Your task to perform on an android device: change keyboard looks Image 0: 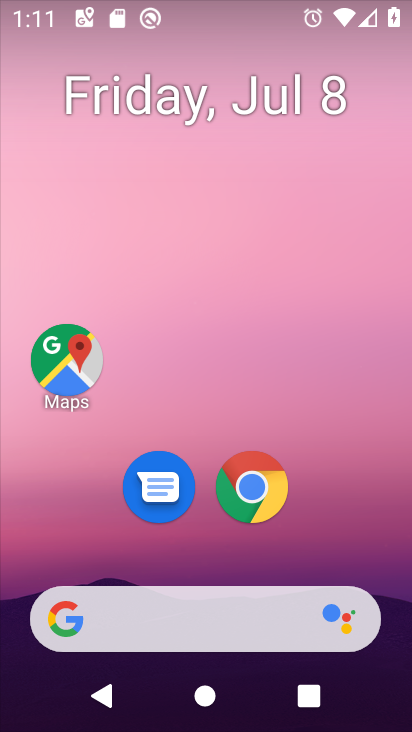
Step 0: drag from (348, 511) to (346, 126)
Your task to perform on an android device: change keyboard looks Image 1: 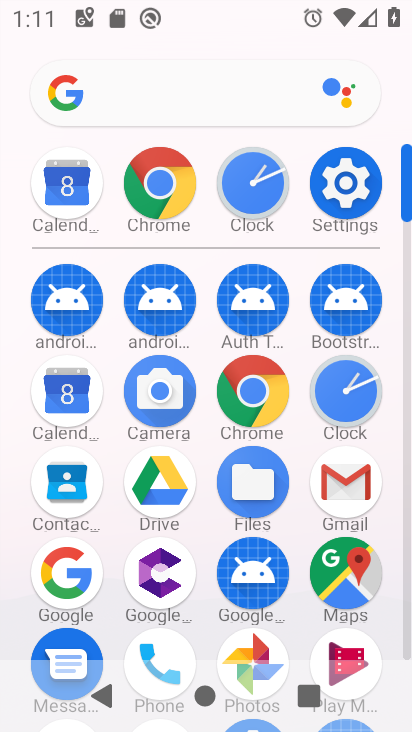
Step 1: click (351, 198)
Your task to perform on an android device: change keyboard looks Image 2: 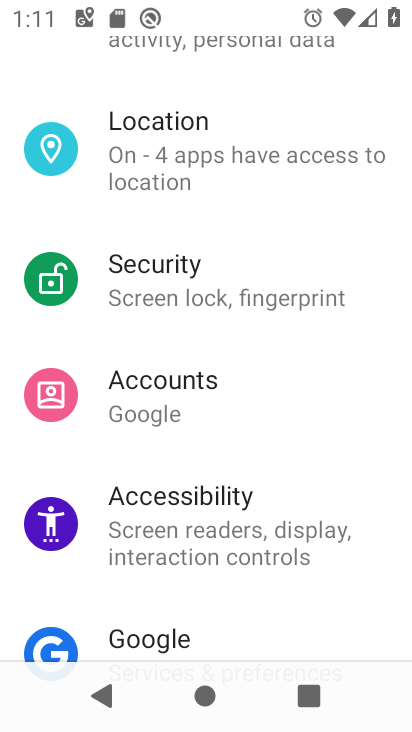
Step 2: drag from (370, 376) to (384, 270)
Your task to perform on an android device: change keyboard looks Image 3: 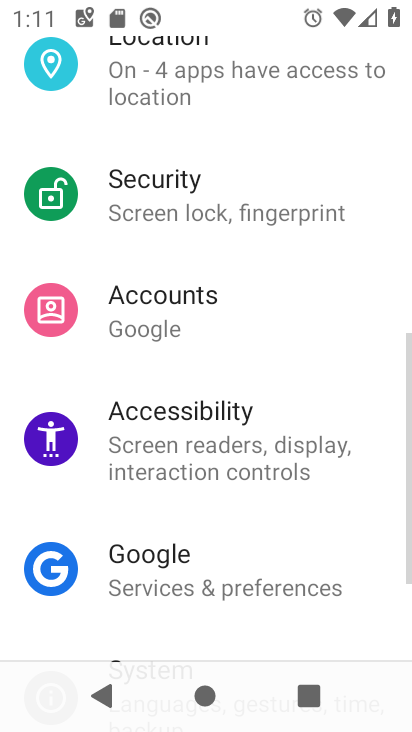
Step 3: drag from (354, 418) to (354, 316)
Your task to perform on an android device: change keyboard looks Image 4: 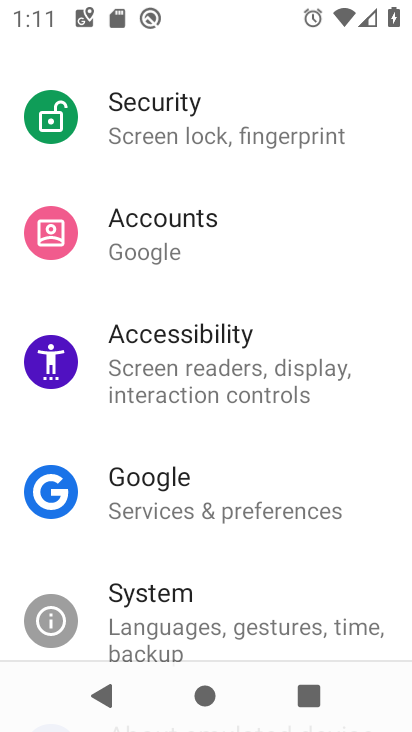
Step 4: drag from (314, 552) to (322, 433)
Your task to perform on an android device: change keyboard looks Image 5: 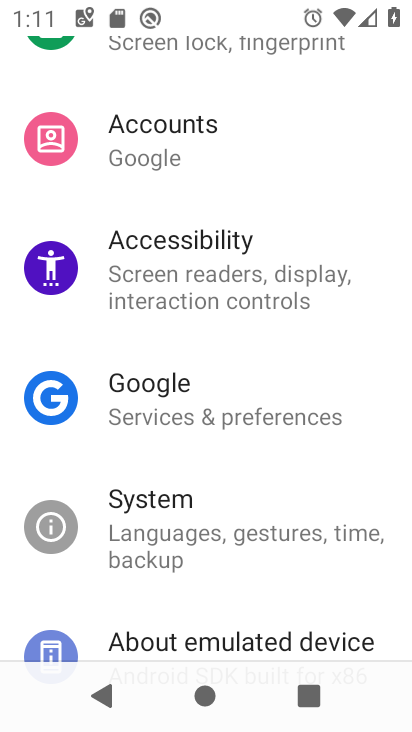
Step 5: drag from (353, 578) to (353, 399)
Your task to perform on an android device: change keyboard looks Image 6: 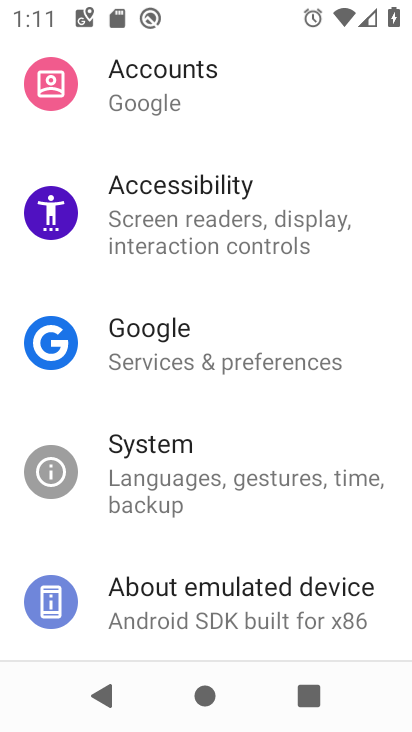
Step 6: click (331, 478)
Your task to perform on an android device: change keyboard looks Image 7: 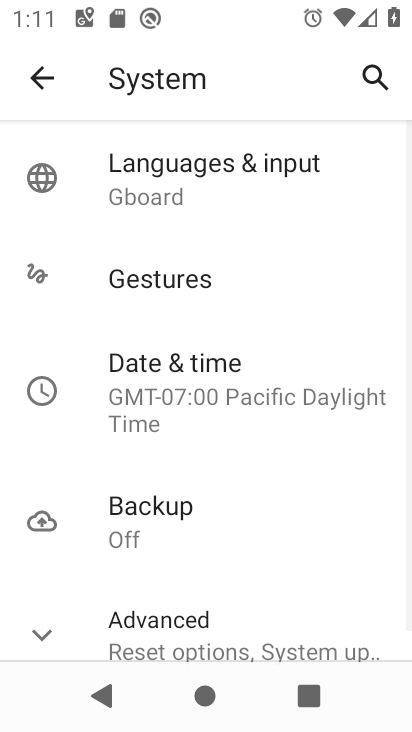
Step 7: drag from (337, 499) to (342, 408)
Your task to perform on an android device: change keyboard looks Image 8: 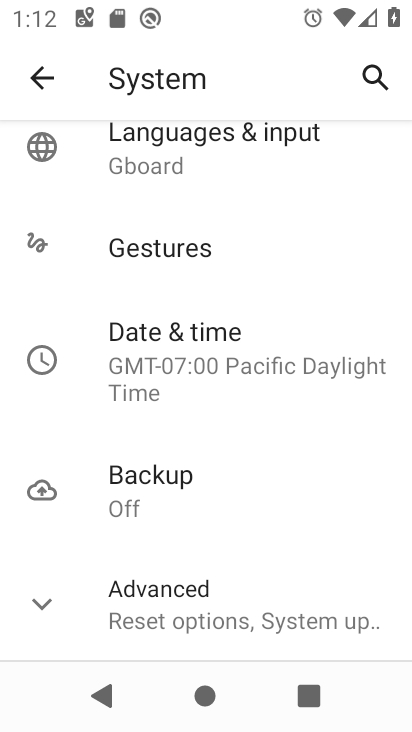
Step 8: drag from (350, 258) to (355, 405)
Your task to perform on an android device: change keyboard looks Image 9: 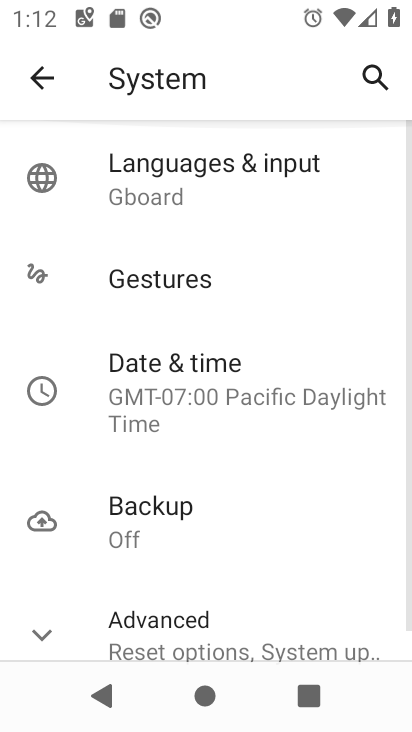
Step 9: click (287, 212)
Your task to perform on an android device: change keyboard looks Image 10: 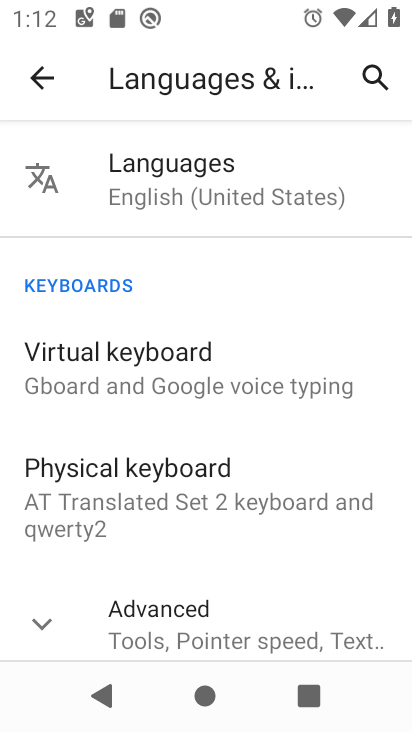
Step 10: drag from (313, 426) to (309, 320)
Your task to perform on an android device: change keyboard looks Image 11: 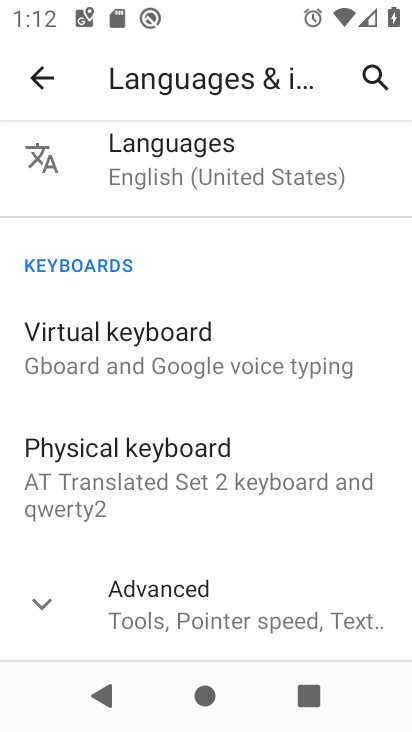
Step 11: click (245, 365)
Your task to perform on an android device: change keyboard looks Image 12: 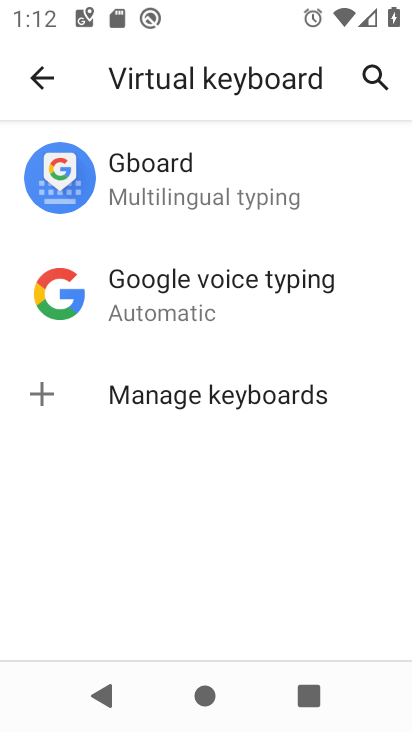
Step 12: click (228, 185)
Your task to perform on an android device: change keyboard looks Image 13: 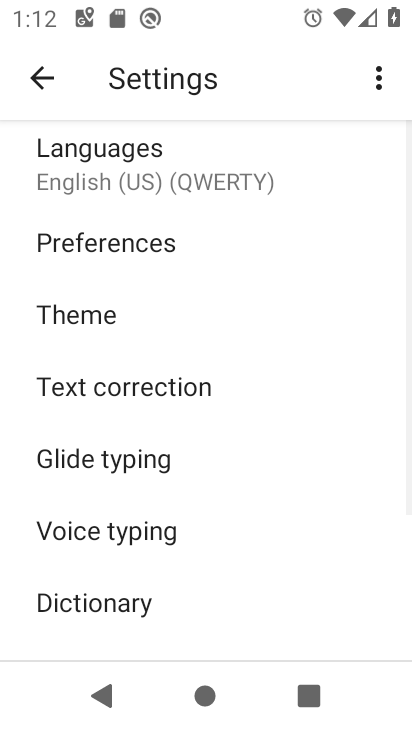
Step 13: drag from (337, 415) to (338, 314)
Your task to perform on an android device: change keyboard looks Image 14: 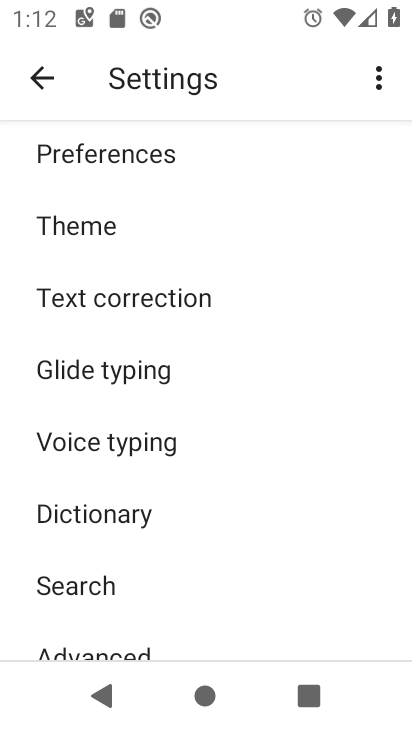
Step 14: click (224, 231)
Your task to perform on an android device: change keyboard looks Image 15: 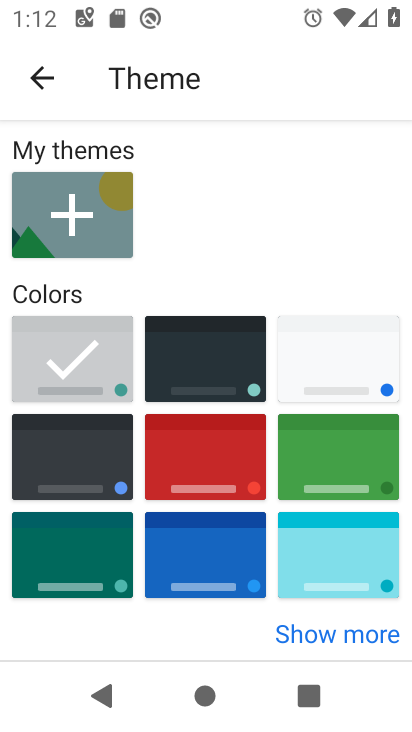
Step 15: click (225, 456)
Your task to perform on an android device: change keyboard looks Image 16: 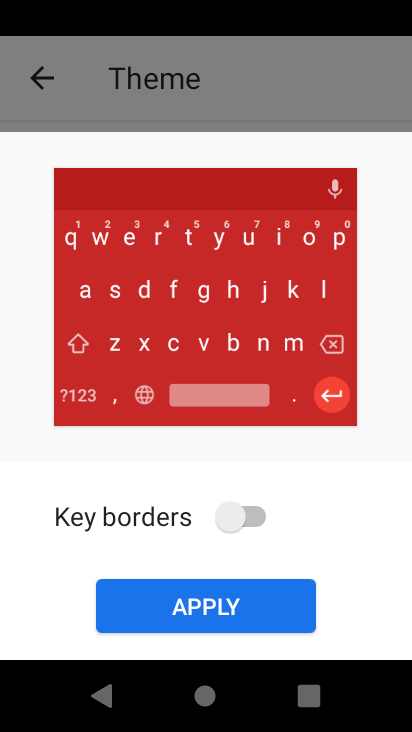
Step 16: click (239, 612)
Your task to perform on an android device: change keyboard looks Image 17: 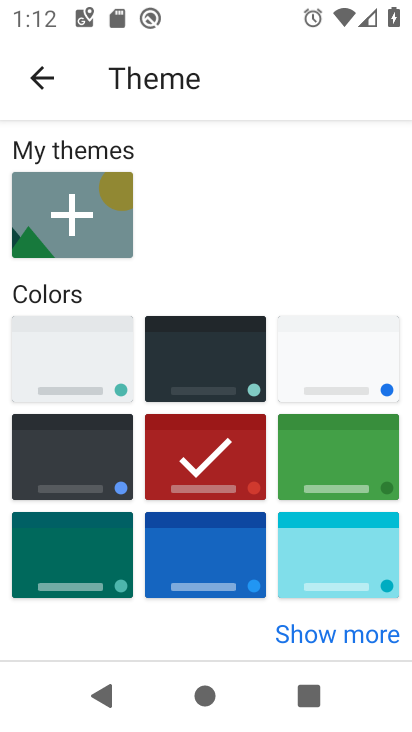
Step 17: task complete